Your task to perform on an android device: Search for logitech g pro on newegg.com, select the first entry, add it to the cart, then select checkout. Image 0: 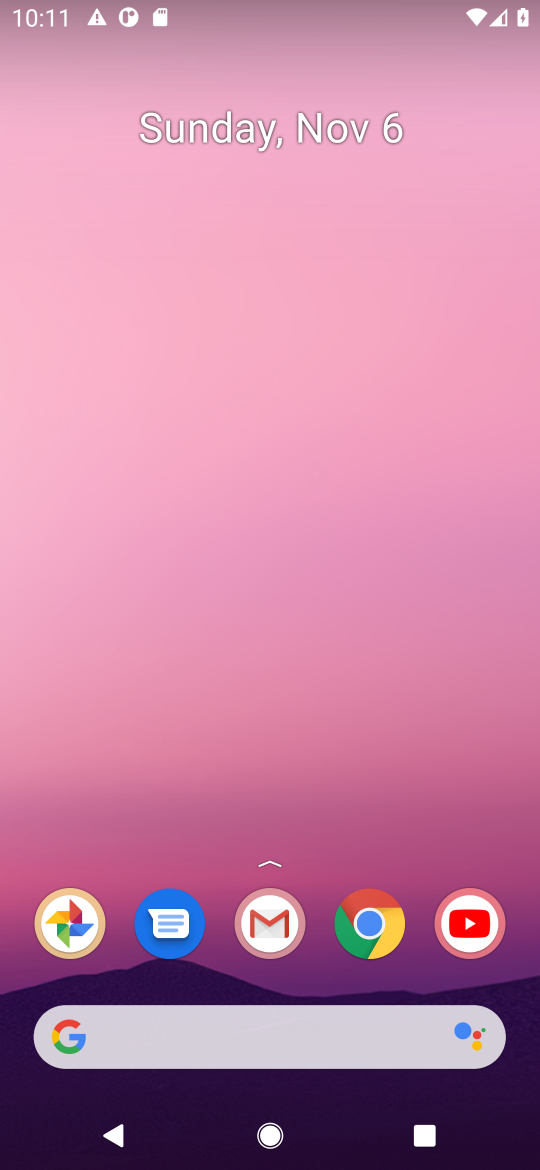
Step 0: click (386, 939)
Your task to perform on an android device: Search for logitech g pro on newegg.com, select the first entry, add it to the cart, then select checkout. Image 1: 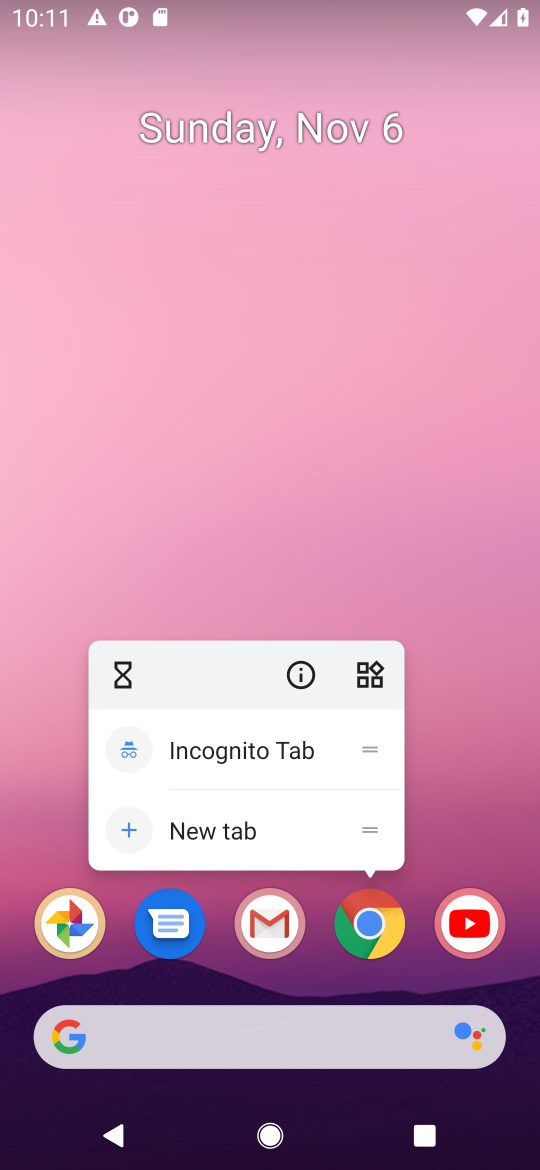
Step 1: click (370, 929)
Your task to perform on an android device: Search for logitech g pro on newegg.com, select the first entry, add it to the cart, then select checkout. Image 2: 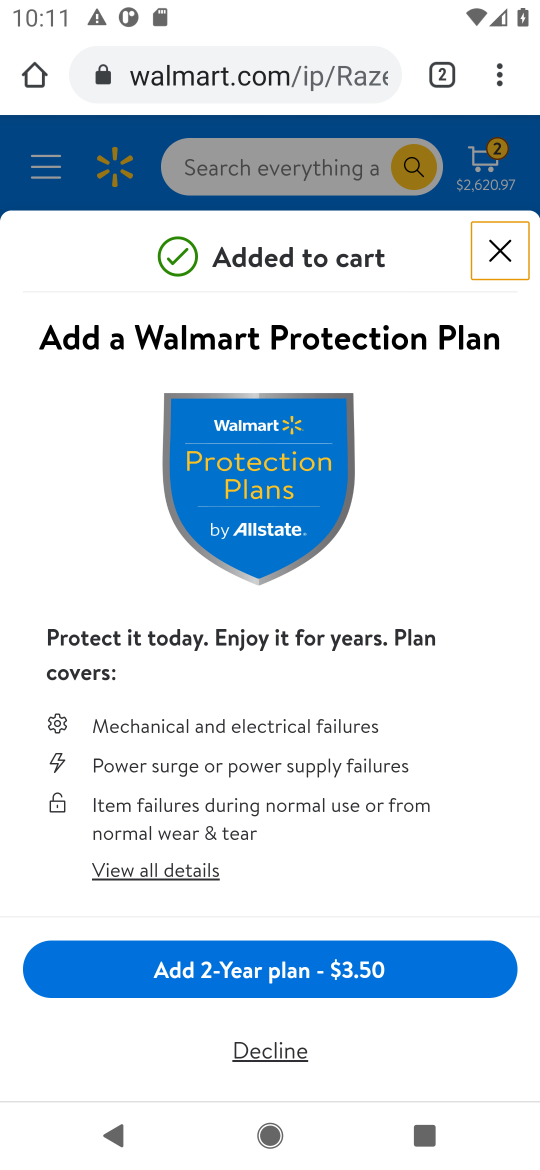
Step 2: click (250, 76)
Your task to perform on an android device: Search for logitech g pro on newegg.com, select the first entry, add it to the cart, then select checkout. Image 3: 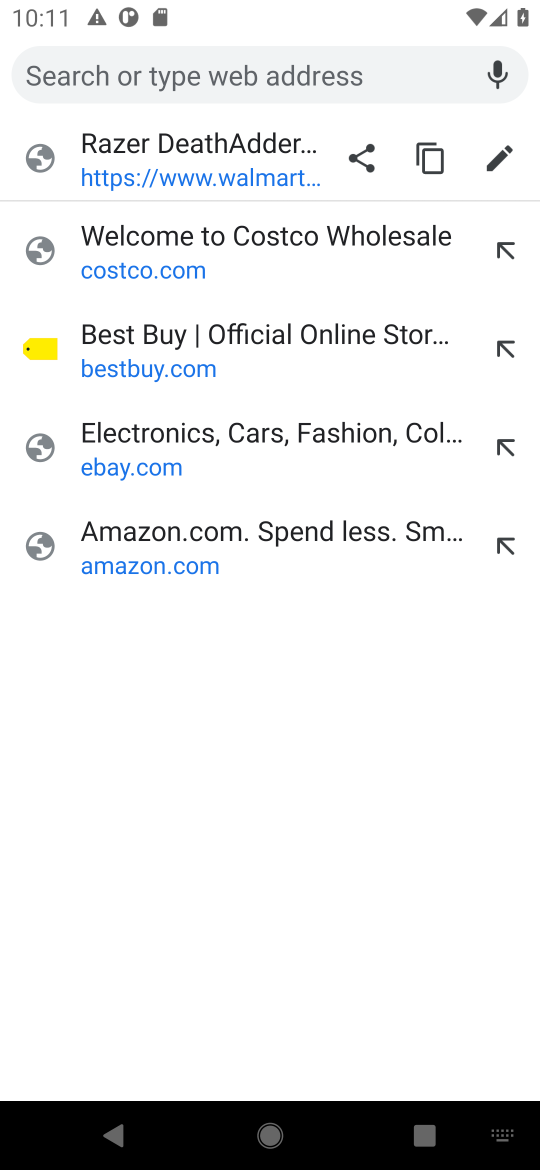
Step 3: click (222, 79)
Your task to perform on an android device: Search for logitech g pro on newegg.com, select the first entry, add it to the cart, then select checkout. Image 4: 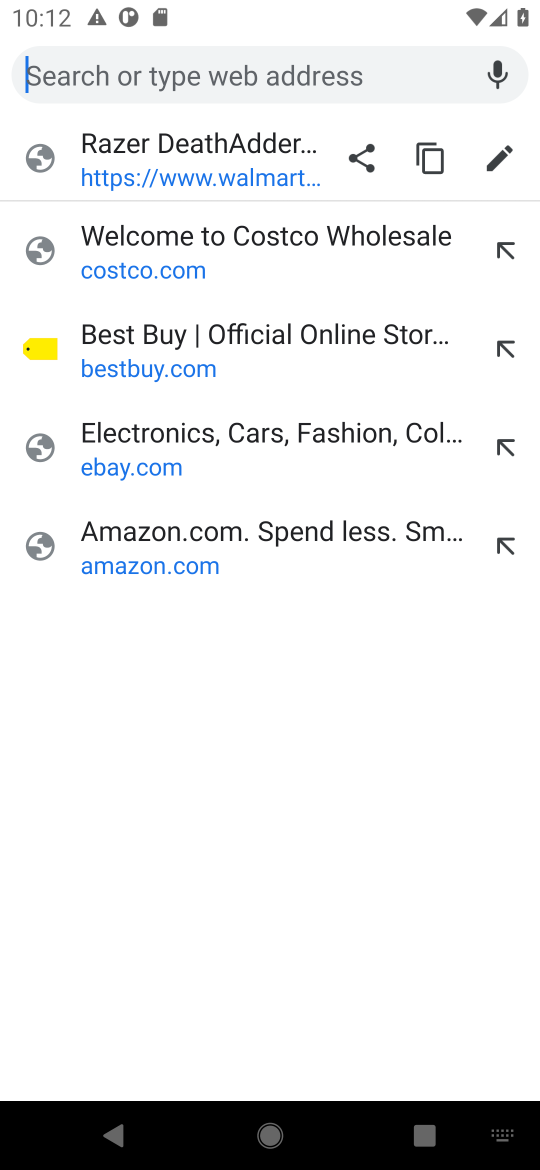
Step 4: type "newegg.com"
Your task to perform on an android device: Search for logitech g pro on newegg.com, select the first entry, add it to the cart, then select checkout. Image 5: 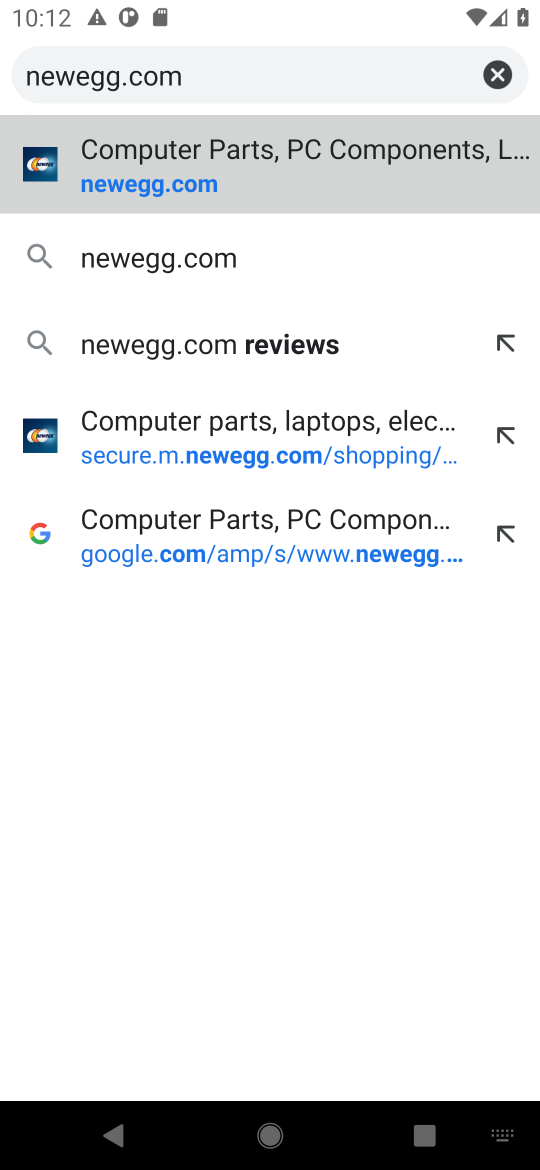
Step 5: click (190, 184)
Your task to perform on an android device: Search for logitech g pro on newegg.com, select the first entry, add it to the cart, then select checkout. Image 6: 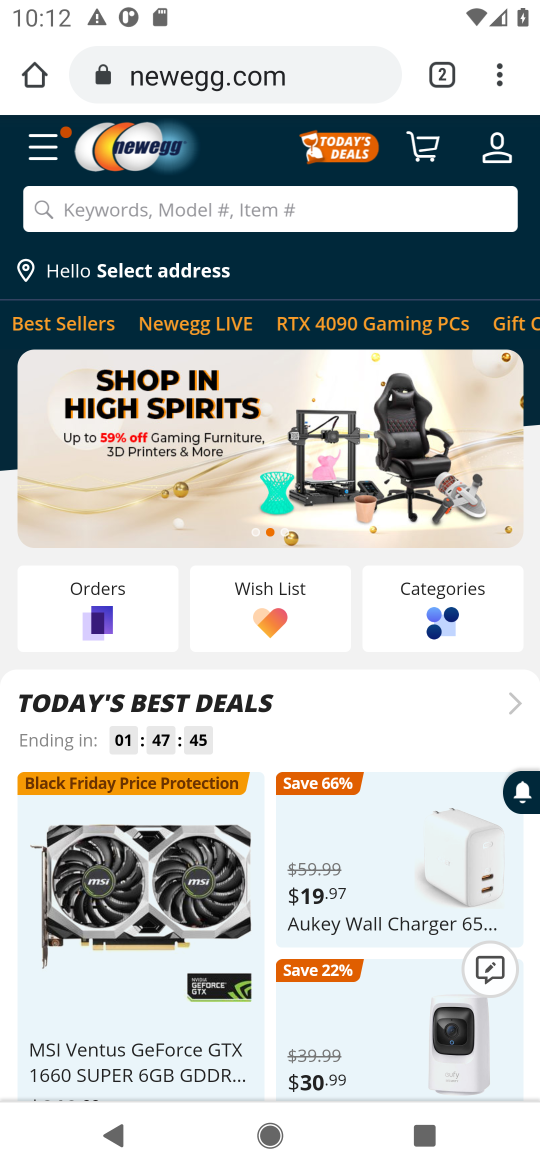
Step 6: click (237, 201)
Your task to perform on an android device: Search for logitech g pro on newegg.com, select the first entry, add it to the cart, then select checkout. Image 7: 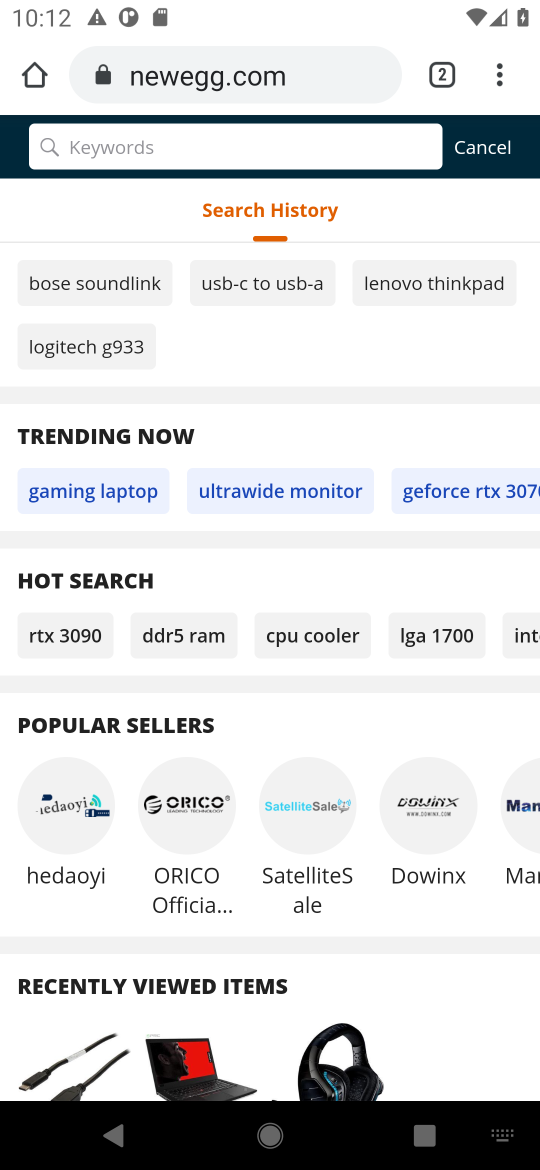
Step 7: type " logitech g pro"
Your task to perform on an android device: Search for logitech g pro on newegg.com, select the first entry, add it to the cart, then select checkout. Image 8: 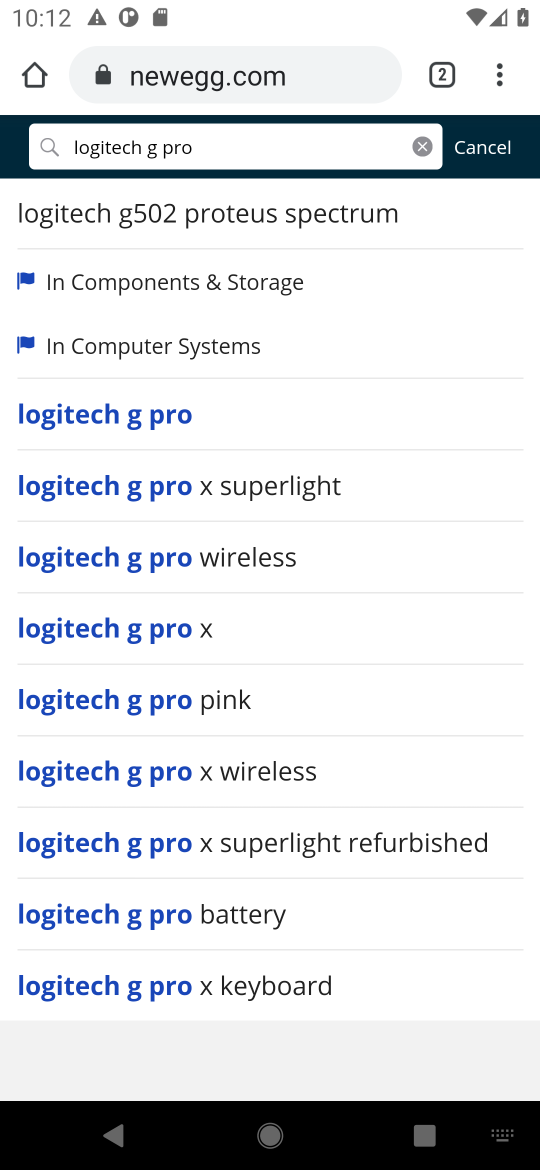
Step 8: click (168, 413)
Your task to perform on an android device: Search for logitech g pro on newegg.com, select the first entry, add it to the cart, then select checkout. Image 9: 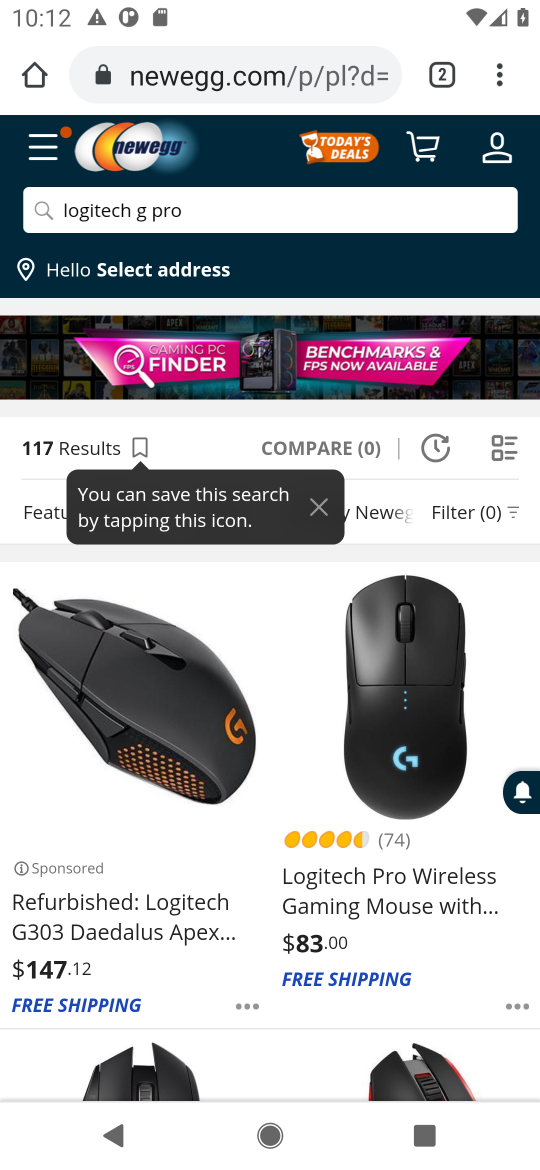
Step 9: task complete